Your task to perform on an android device: turn on wifi Image 0: 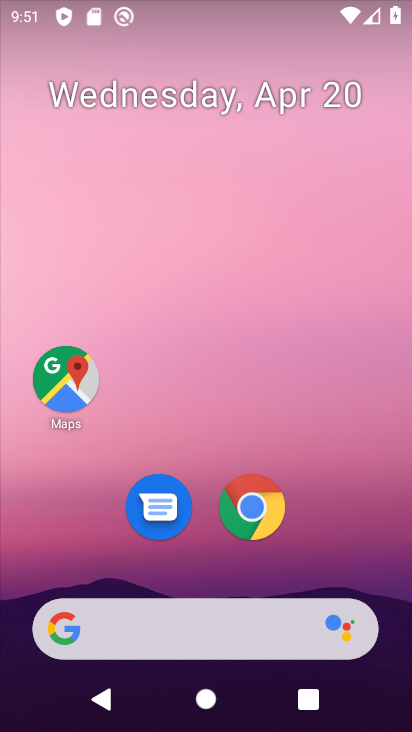
Step 0: drag from (206, 583) to (208, 9)
Your task to perform on an android device: turn on wifi Image 1: 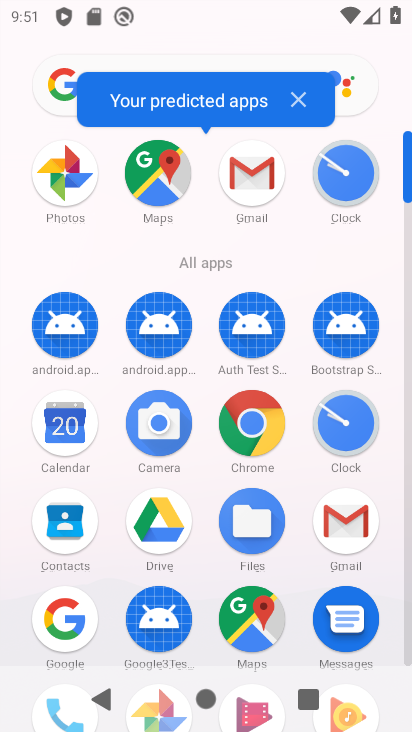
Step 1: drag from (197, 645) to (208, 321)
Your task to perform on an android device: turn on wifi Image 2: 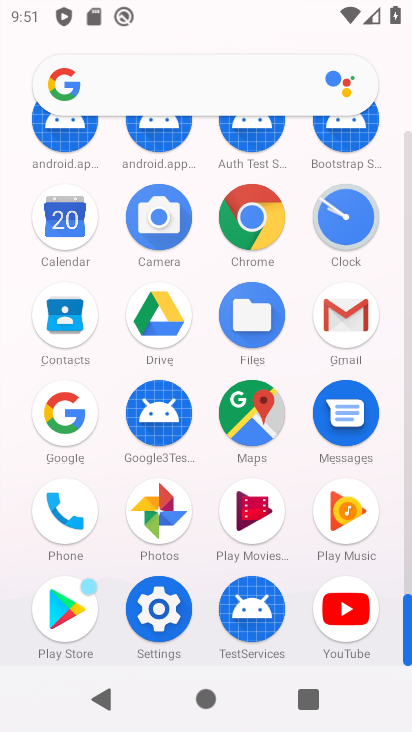
Step 2: click (151, 604)
Your task to perform on an android device: turn on wifi Image 3: 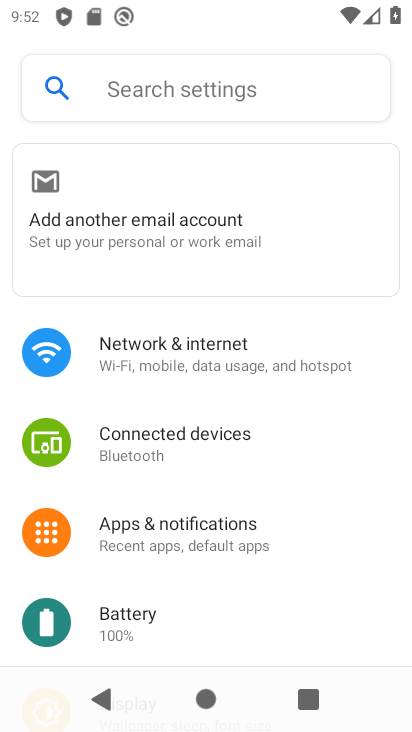
Step 3: click (180, 359)
Your task to perform on an android device: turn on wifi Image 4: 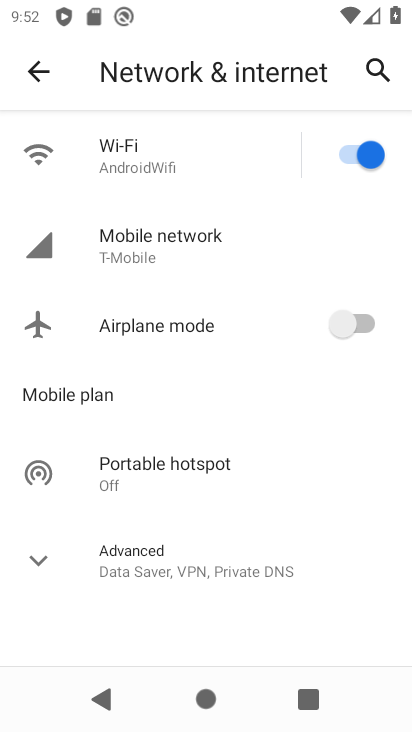
Step 4: task complete